Your task to perform on an android device: show emergency info Image 0: 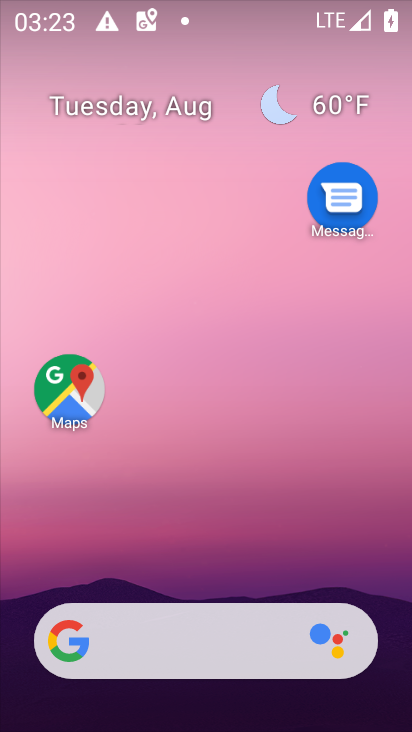
Step 0: drag from (199, 589) to (199, 22)
Your task to perform on an android device: show emergency info Image 1: 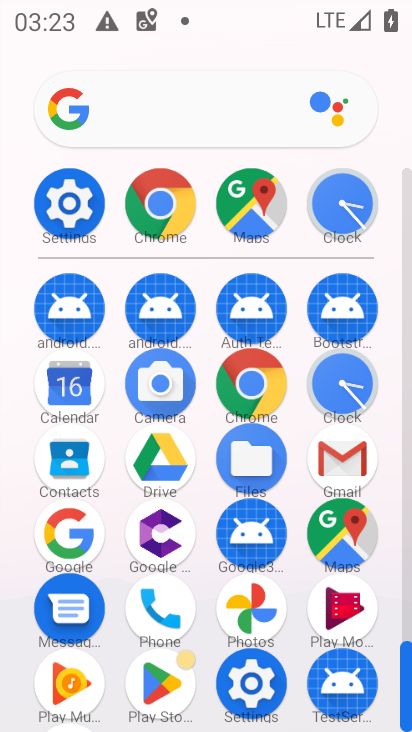
Step 1: click (88, 185)
Your task to perform on an android device: show emergency info Image 2: 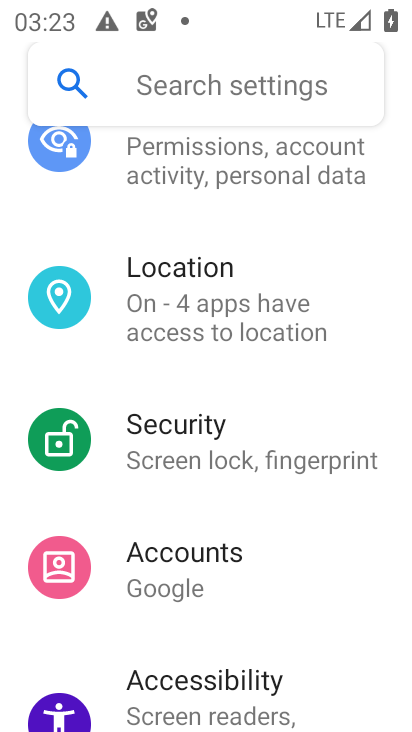
Step 2: drag from (205, 673) to (250, 234)
Your task to perform on an android device: show emergency info Image 3: 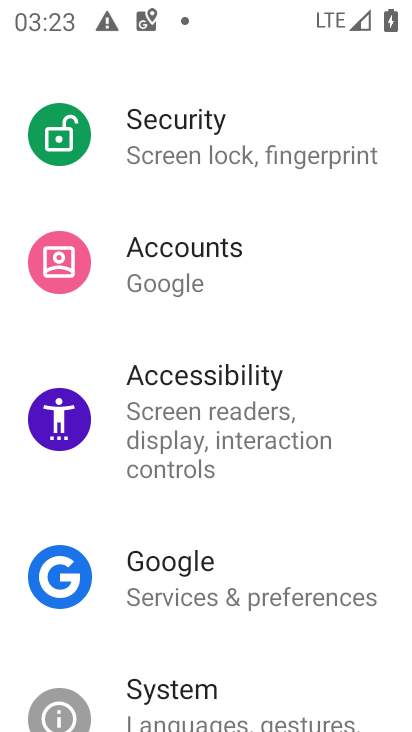
Step 3: drag from (247, 706) to (263, 310)
Your task to perform on an android device: show emergency info Image 4: 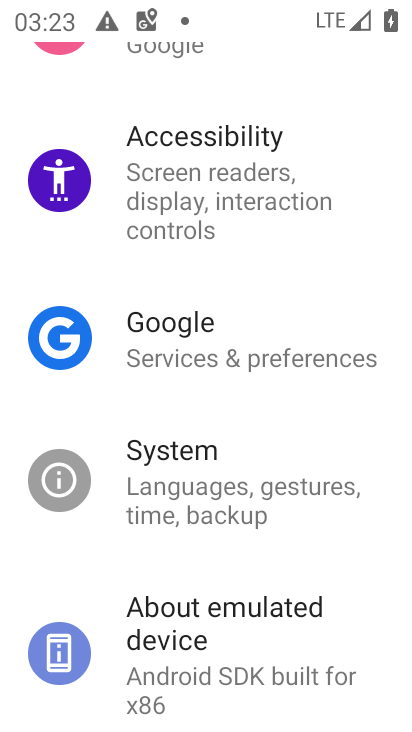
Step 4: click (258, 598)
Your task to perform on an android device: show emergency info Image 5: 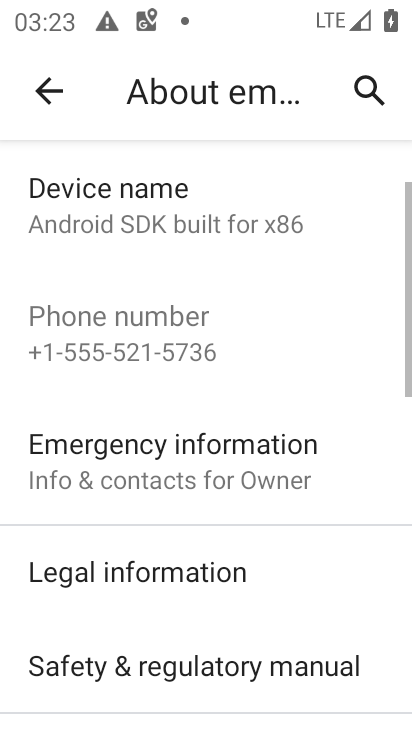
Step 5: click (191, 505)
Your task to perform on an android device: show emergency info Image 6: 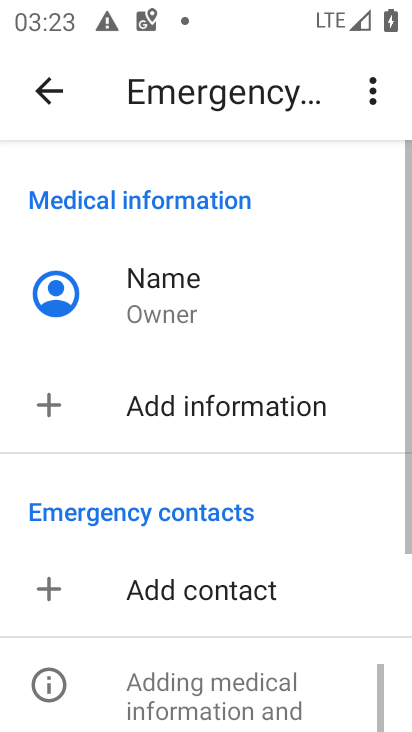
Step 6: task complete